Your task to perform on an android device: Is it going to rain tomorrow? Image 0: 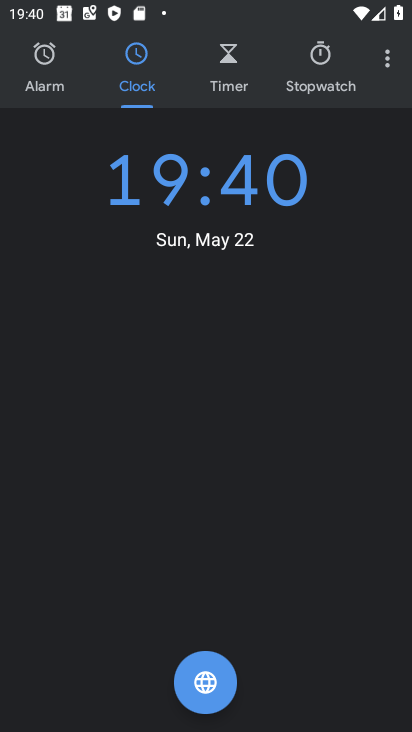
Step 0: press back button
Your task to perform on an android device: Is it going to rain tomorrow? Image 1: 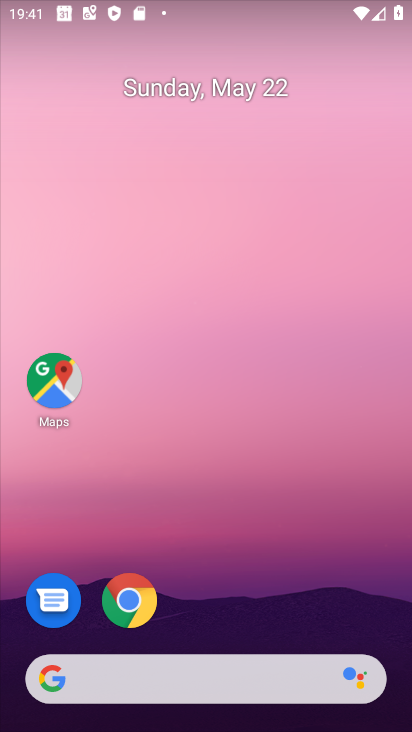
Step 1: drag from (204, 592) to (201, 1)
Your task to perform on an android device: Is it going to rain tomorrow? Image 2: 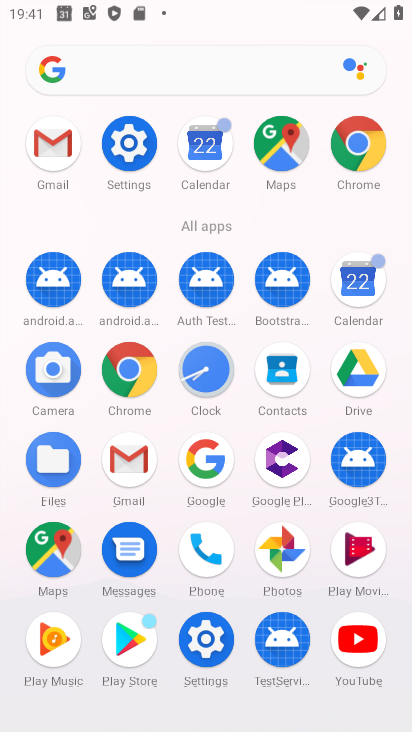
Step 2: drag from (18, 521) to (15, 222)
Your task to perform on an android device: Is it going to rain tomorrow? Image 3: 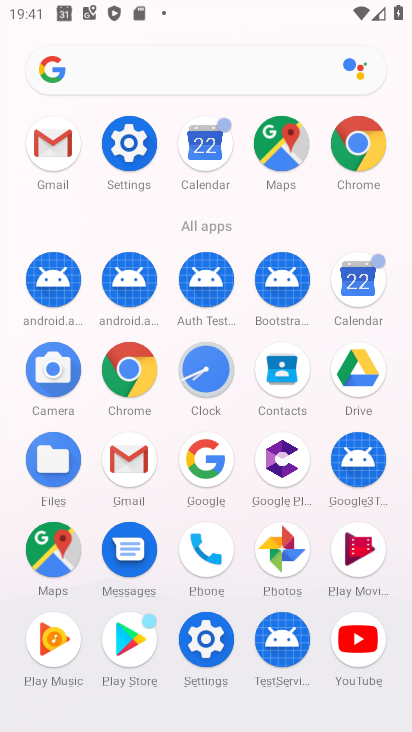
Step 3: click (130, 369)
Your task to perform on an android device: Is it going to rain tomorrow? Image 4: 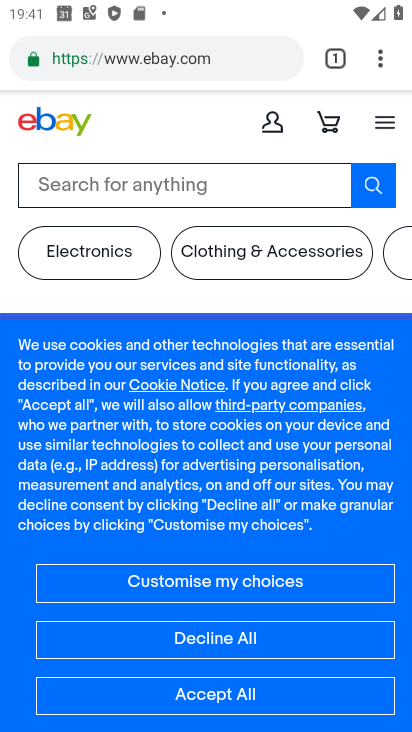
Step 4: click (153, 50)
Your task to perform on an android device: Is it going to rain tomorrow? Image 5: 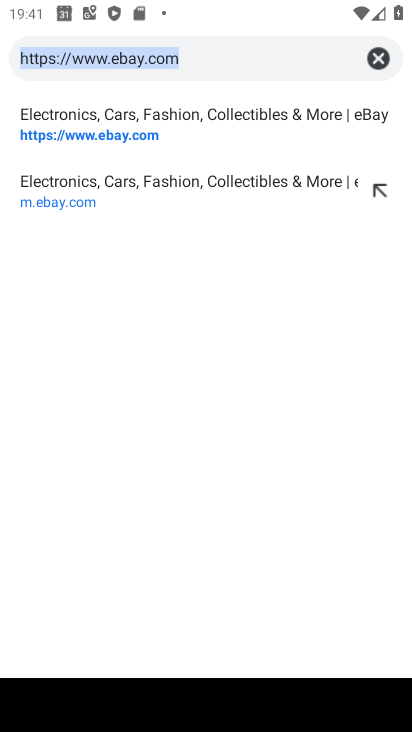
Step 5: click (379, 53)
Your task to perform on an android device: Is it going to rain tomorrow? Image 6: 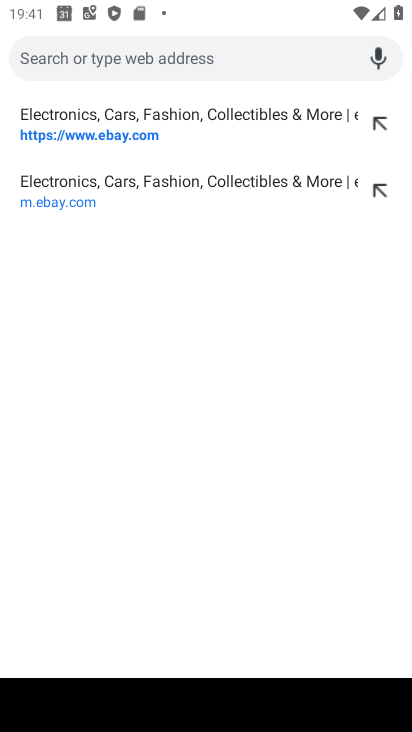
Step 6: type "Is it going to rain tomorrow?"
Your task to perform on an android device: Is it going to rain tomorrow? Image 7: 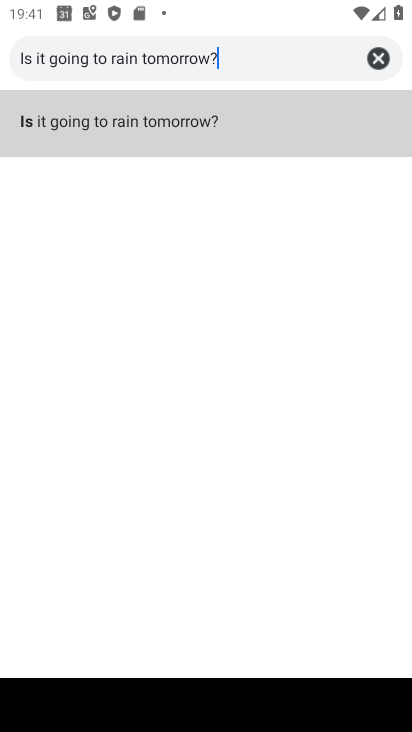
Step 7: type ""
Your task to perform on an android device: Is it going to rain tomorrow? Image 8: 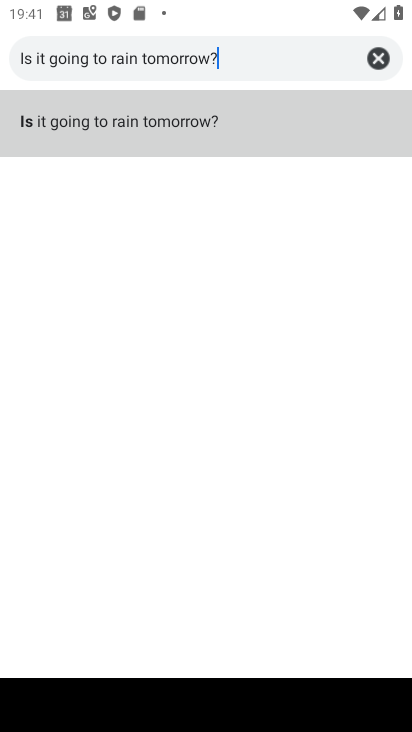
Step 8: click (91, 108)
Your task to perform on an android device: Is it going to rain tomorrow? Image 9: 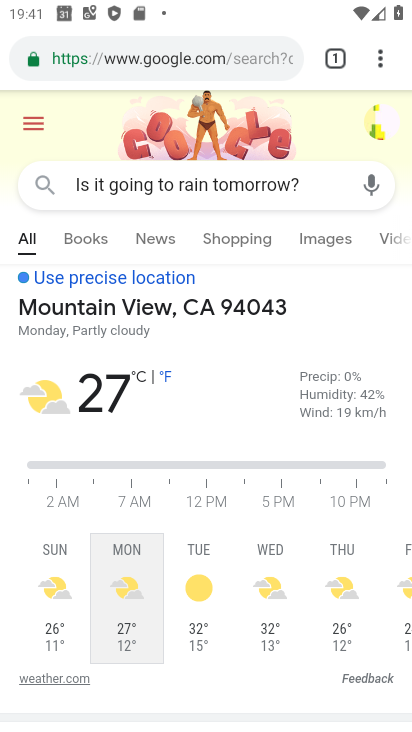
Step 9: task complete